Your task to perform on an android device: toggle airplane mode Image 0: 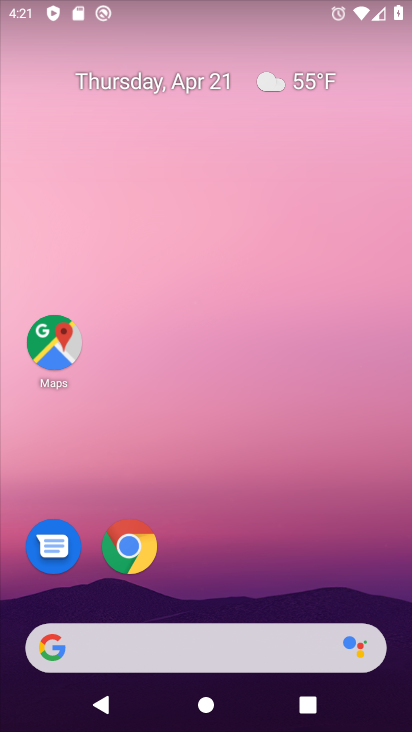
Step 0: drag from (323, 457) to (325, 150)
Your task to perform on an android device: toggle airplane mode Image 1: 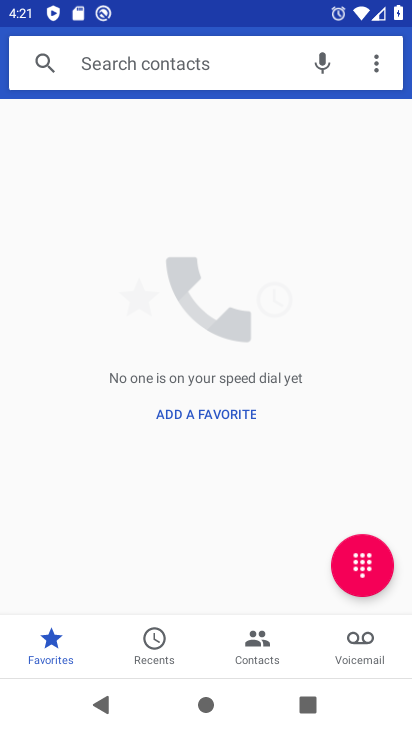
Step 1: press home button
Your task to perform on an android device: toggle airplane mode Image 2: 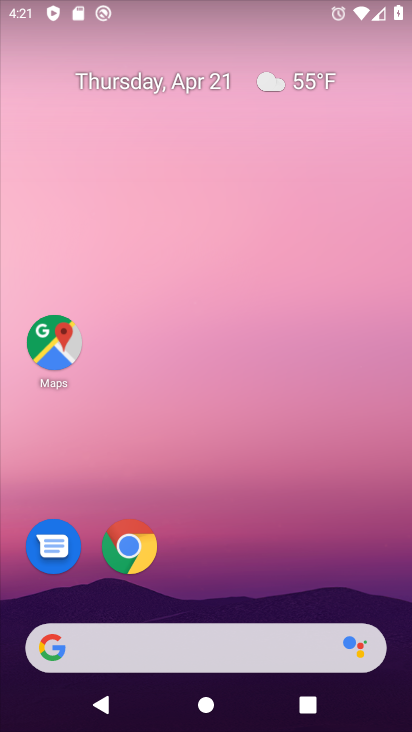
Step 2: drag from (281, 572) to (276, 512)
Your task to perform on an android device: toggle airplane mode Image 3: 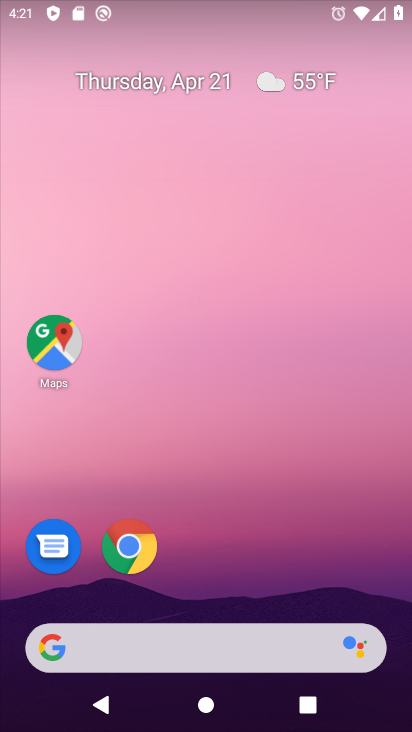
Step 3: drag from (267, 4) to (339, 558)
Your task to perform on an android device: toggle airplane mode Image 4: 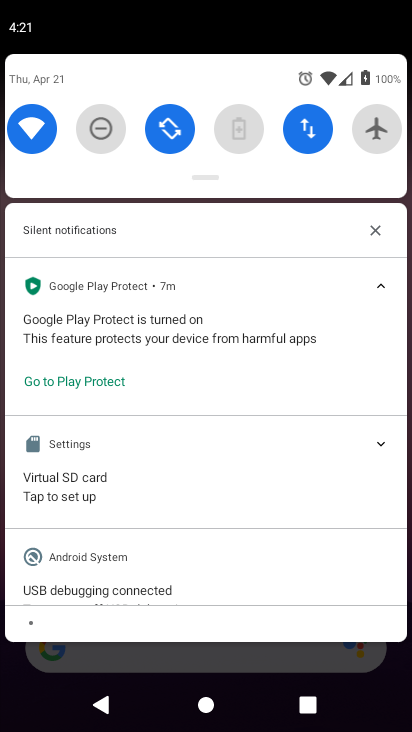
Step 4: click (374, 124)
Your task to perform on an android device: toggle airplane mode Image 5: 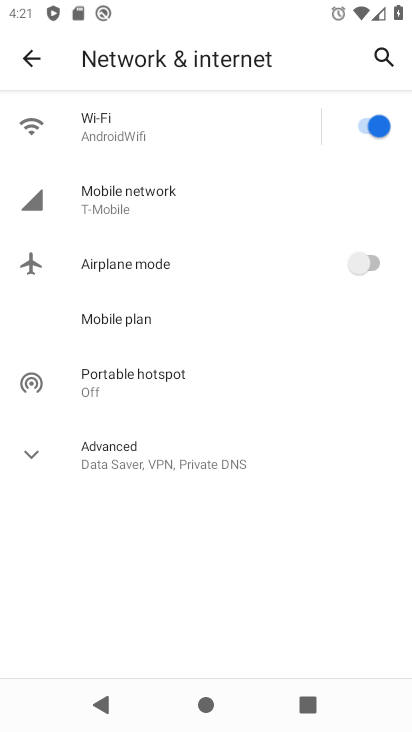
Step 5: click (369, 258)
Your task to perform on an android device: toggle airplane mode Image 6: 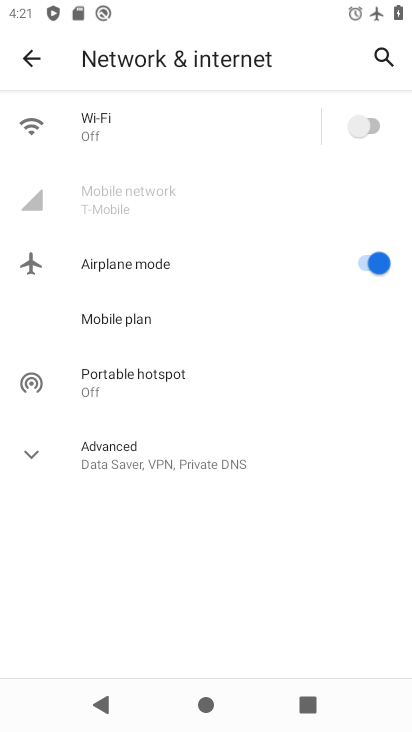
Step 6: task complete